Your task to perform on an android device: turn off improve location accuracy Image 0: 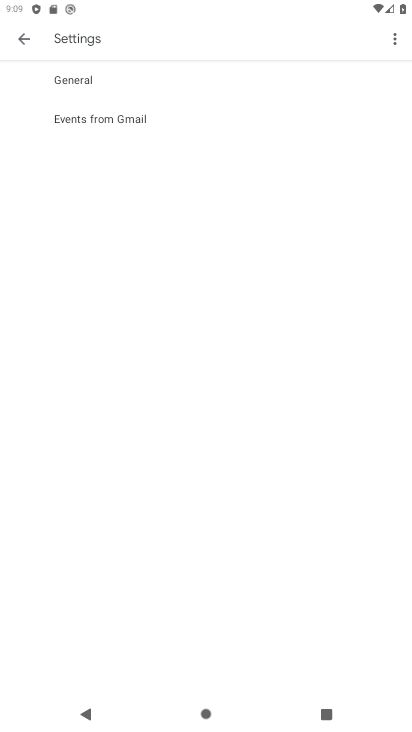
Step 0: press home button
Your task to perform on an android device: turn off improve location accuracy Image 1: 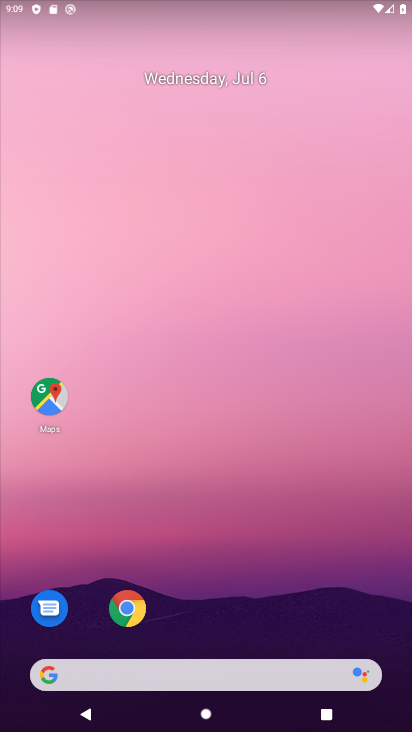
Step 1: drag from (203, 662) to (191, 106)
Your task to perform on an android device: turn off improve location accuracy Image 2: 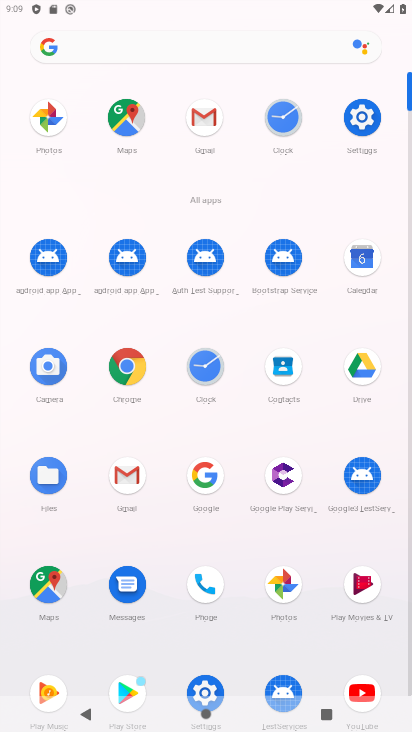
Step 2: click (364, 116)
Your task to perform on an android device: turn off improve location accuracy Image 3: 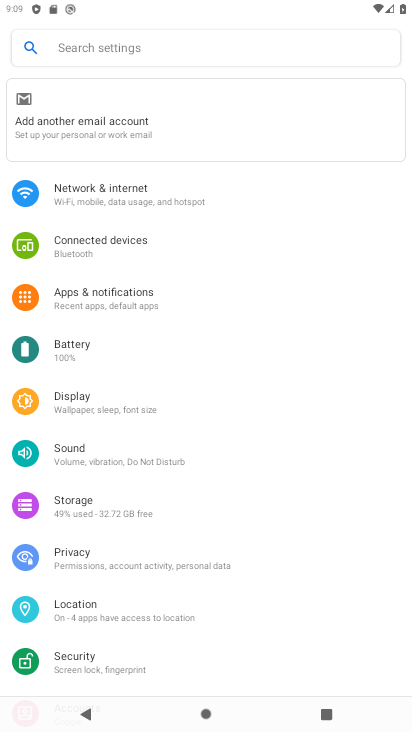
Step 3: click (78, 622)
Your task to perform on an android device: turn off improve location accuracy Image 4: 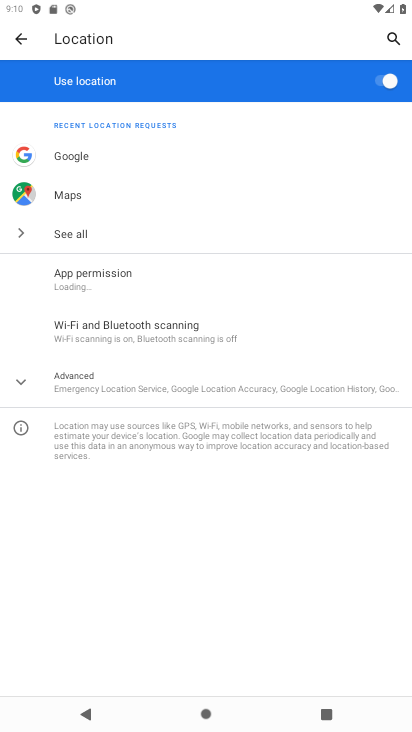
Step 4: click (132, 380)
Your task to perform on an android device: turn off improve location accuracy Image 5: 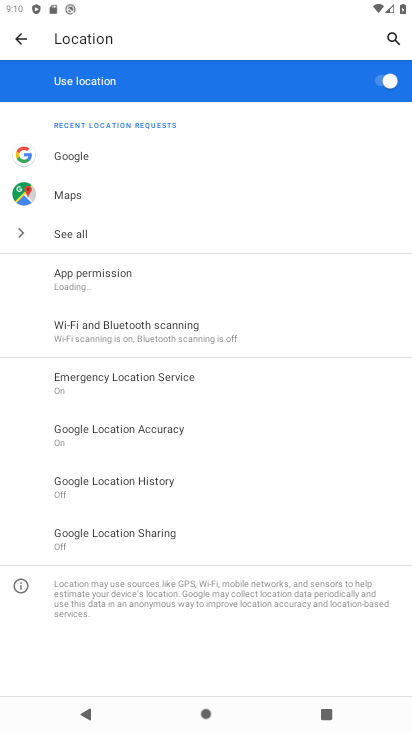
Step 5: click (154, 431)
Your task to perform on an android device: turn off improve location accuracy Image 6: 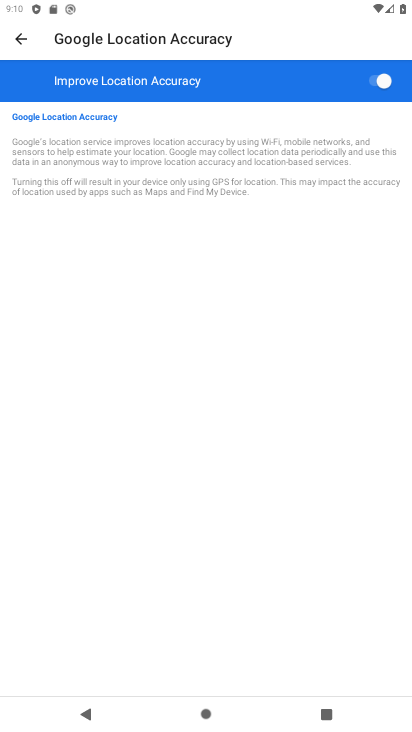
Step 6: click (377, 84)
Your task to perform on an android device: turn off improve location accuracy Image 7: 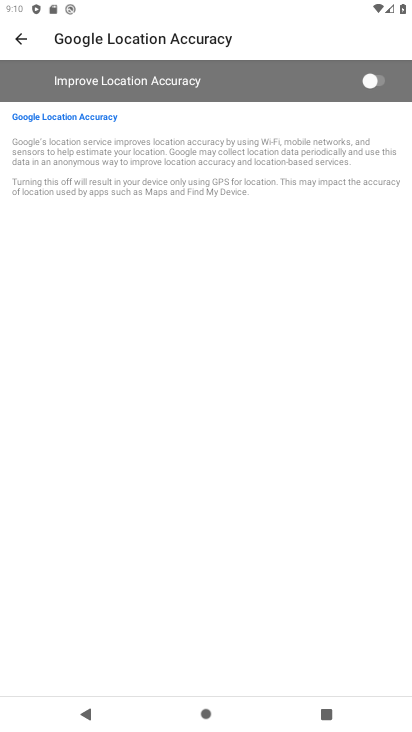
Step 7: task complete